Your task to perform on an android device: Is it going to rain tomorrow? Image 0: 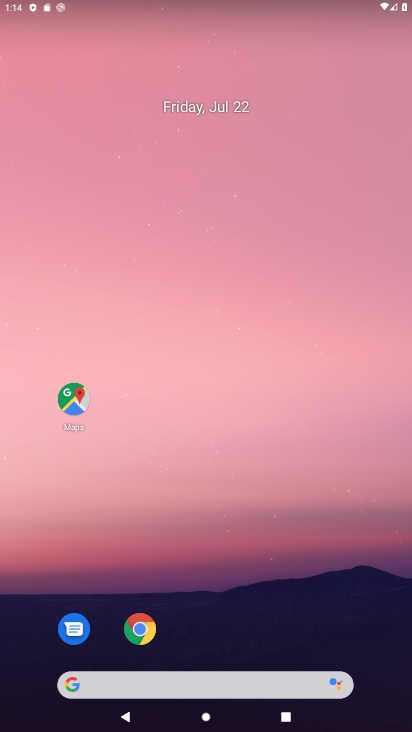
Step 0: drag from (244, 577) to (306, 1)
Your task to perform on an android device: Is it going to rain tomorrow? Image 1: 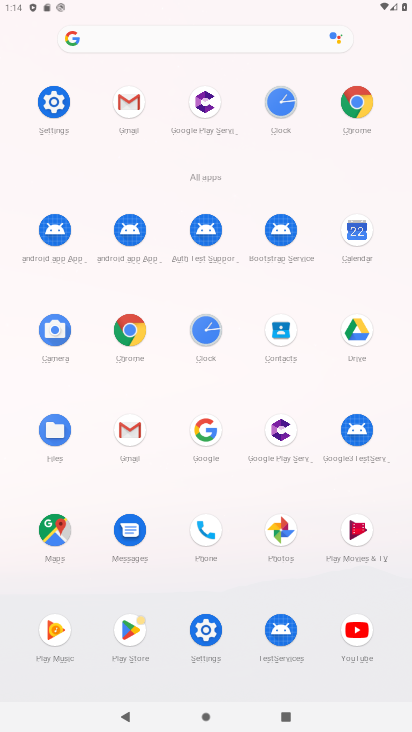
Step 1: click (131, 330)
Your task to perform on an android device: Is it going to rain tomorrow? Image 2: 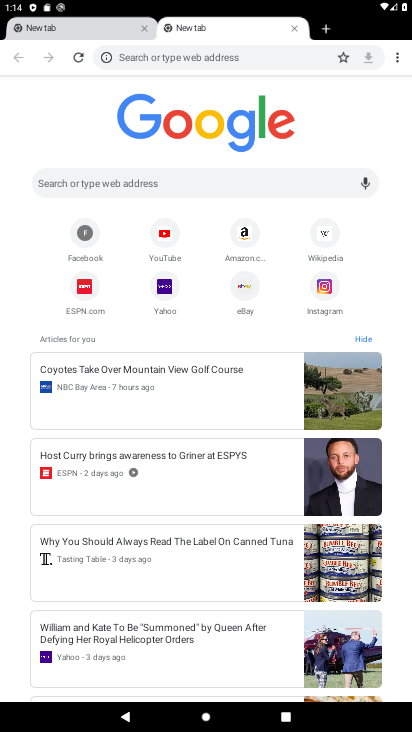
Step 2: click (148, 183)
Your task to perform on an android device: Is it going to rain tomorrow? Image 3: 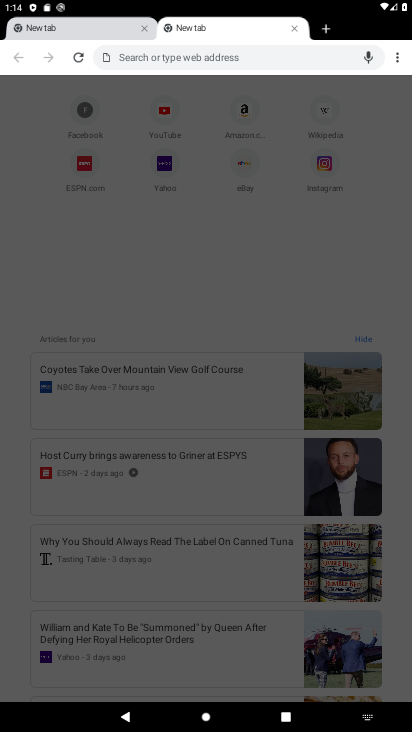
Step 3: type "weather"
Your task to perform on an android device: Is it going to rain tomorrow? Image 4: 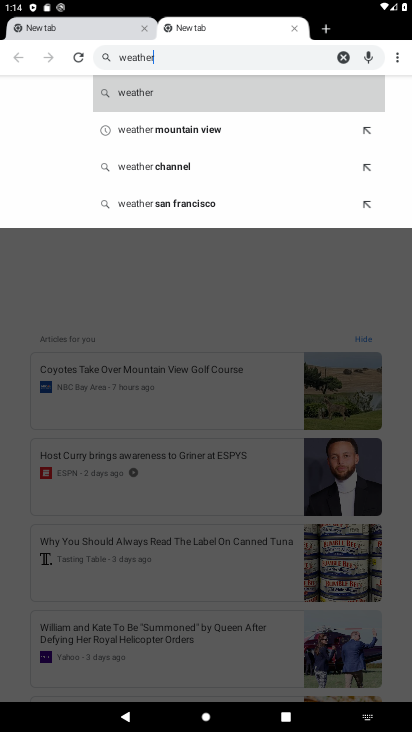
Step 4: type ""
Your task to perform on an android device: Is it going to rain tomorrow? Image 5: 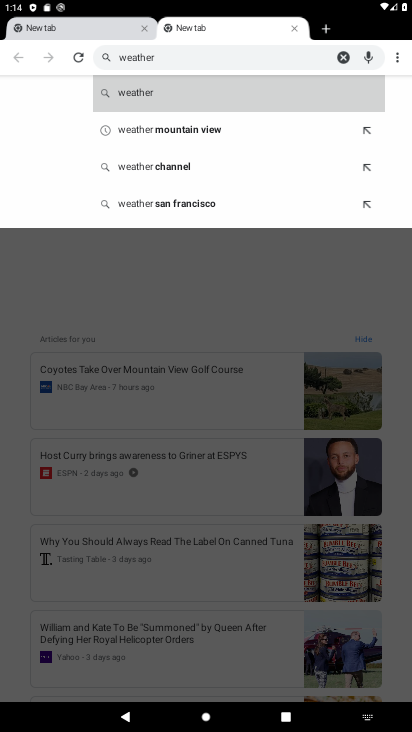
Step 5: click (179, 108)
Your task to perform on an android device: Is it going to rain tomorrow? Image 6: 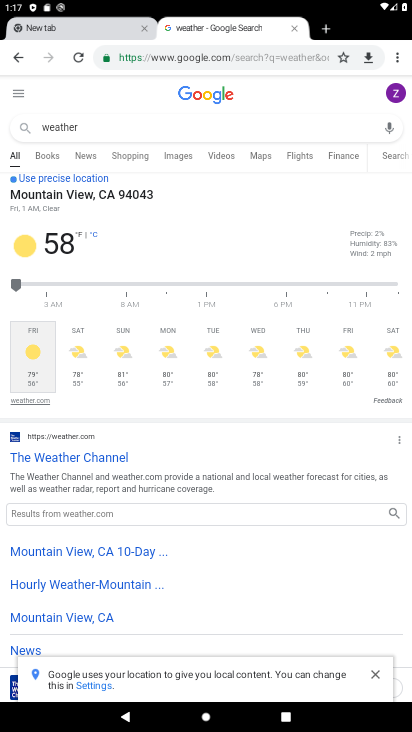
Step 6: task complete